Your task to perform on an android device: visit the assistant section in the google photos Image 0: 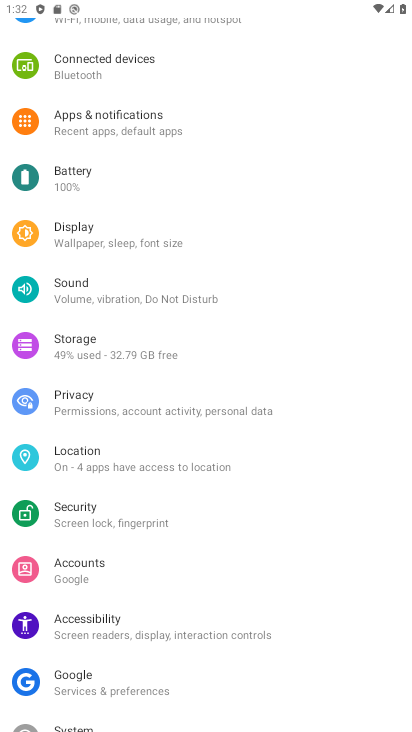
Step 0: press home button
Your task to perform on an android device: visit the assistant section in the google photos Image 1: 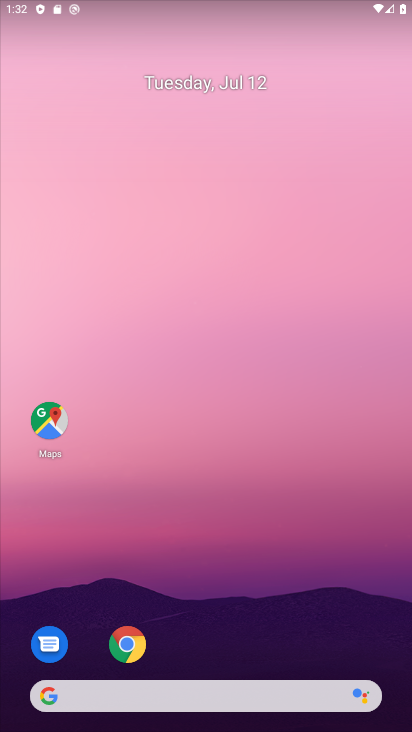
Step 1: drag from (202, 661) to (319, 96)
Your task to perform on an android device: visit the assistant section in the google photos Image 2: 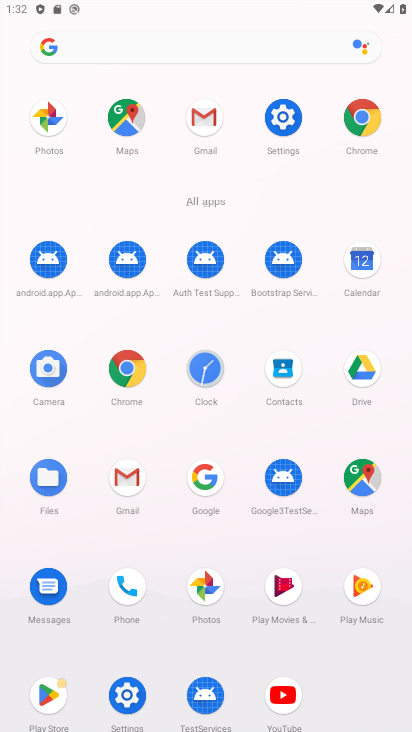
Step 2: click (211, 587)
Your task to perform on an android device: visit the assistant section in the google photos Image 3: 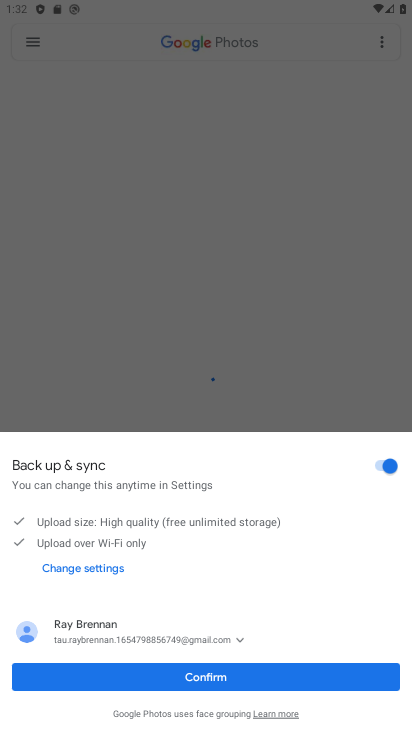
Step 3: click (210, 678)
Your task to perform on an android device: visit the assistant section in the google photos Image 4: 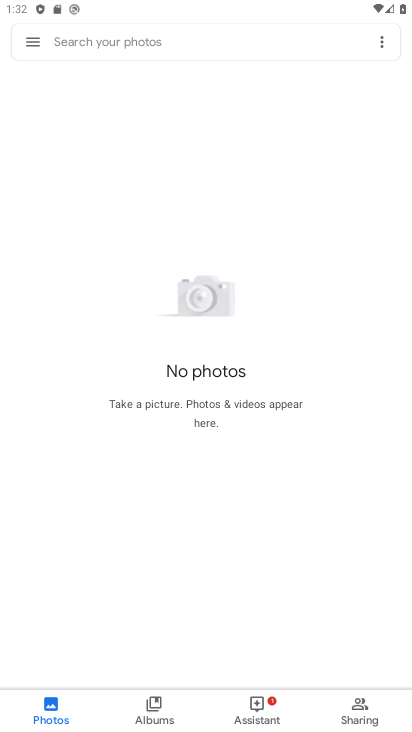
Step 4: click (245, 696)
Your task to perform on an android device: visit the assistant section in the google photos Image 5: 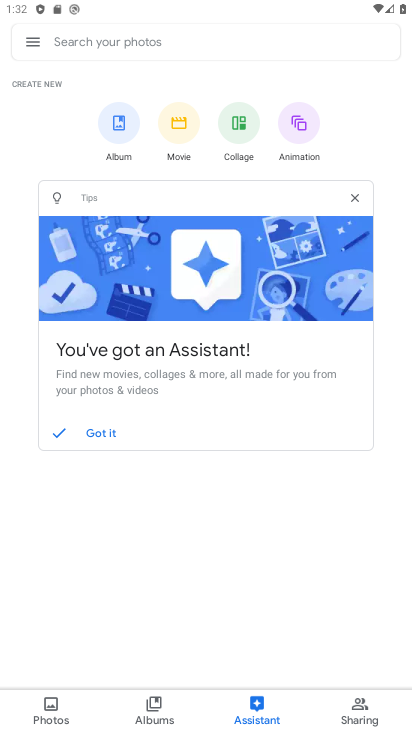
Step 5: task complete